Your task to perform on an android device: Do I have any events tomorrow? Image 0: 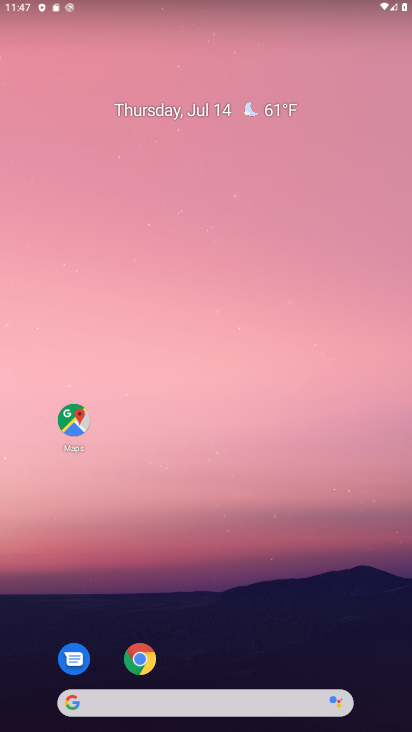
Step 0: drag from (264, 672) to (263, 178)
Your task to perform on an android device: Do I have any events tomorrow? Image 1: 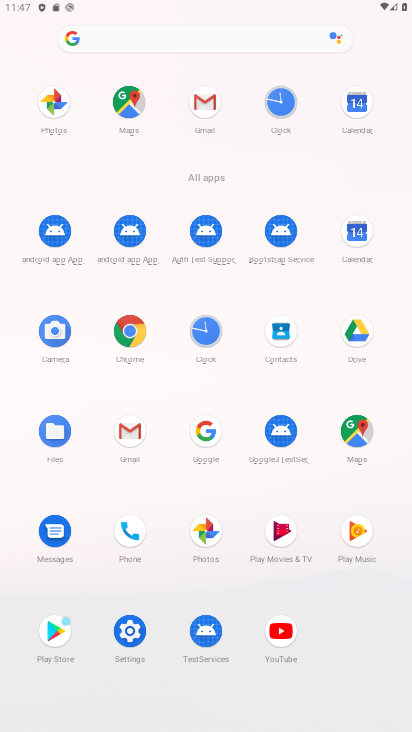
Step 1: click (354, 109)
Your task to perform on an android device: Do I have any events tomorrow? Image 2: 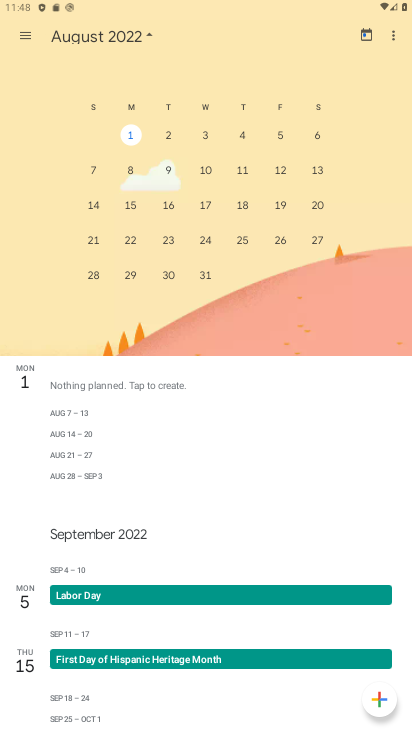
Step 2: drag from (73, 229) to (411, 216)
Your task to perform on an android device: Do I have any events tomorrow? Image 3: 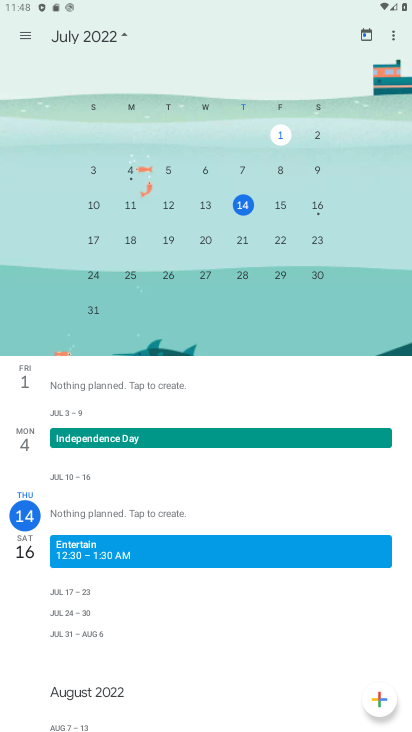
Step 3: click (279, 205)
Your task to perform on an android device: Do I have any events tomorrow? Image 4: 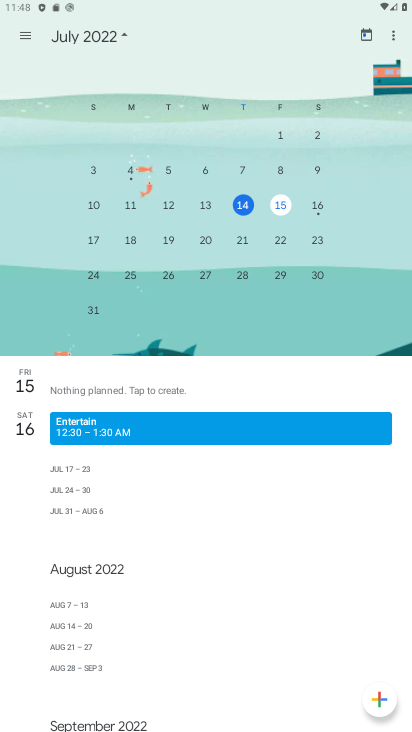
Step 4: task complete